Your task to perform on an android device: show emergency info Image 0: 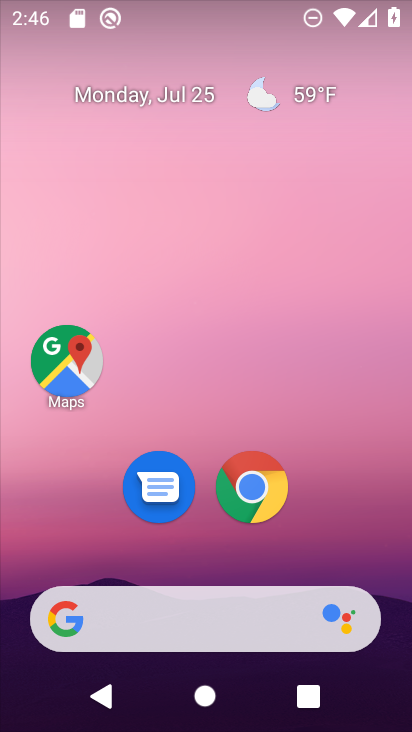
Step 0: drag from (150, 528) to (168, 25)
Your task to perform on an android device: show emergency info Image 1: 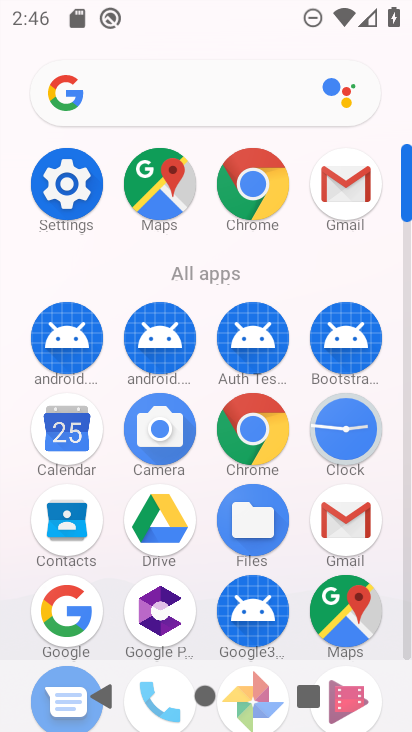
Step 1: click (74, 194)
Your task to perform on an android device: show emergency info Image 2: 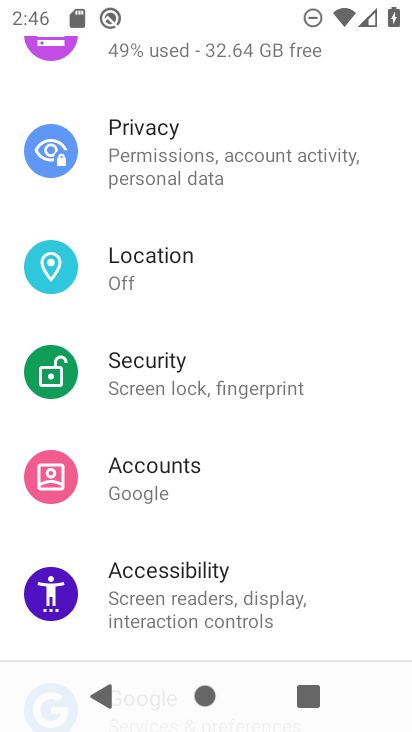
Step 2: drag from (208, 612) to (278, 44)
Your task to perform on an android device: show emergency info Image 3: 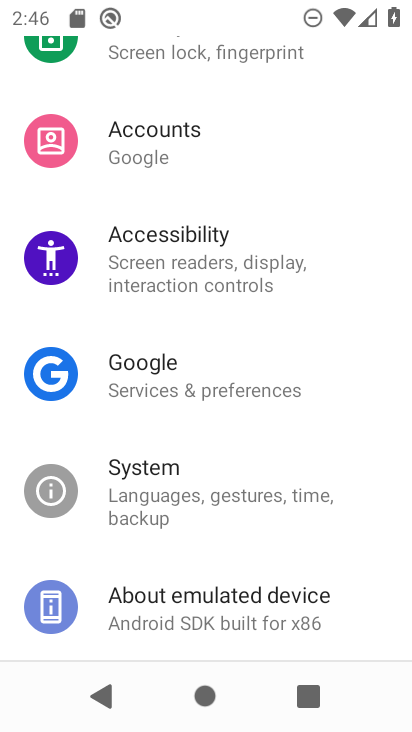
Step 3: click (182, 627)
Your task to perform on an android device: show emergency info Image 4: 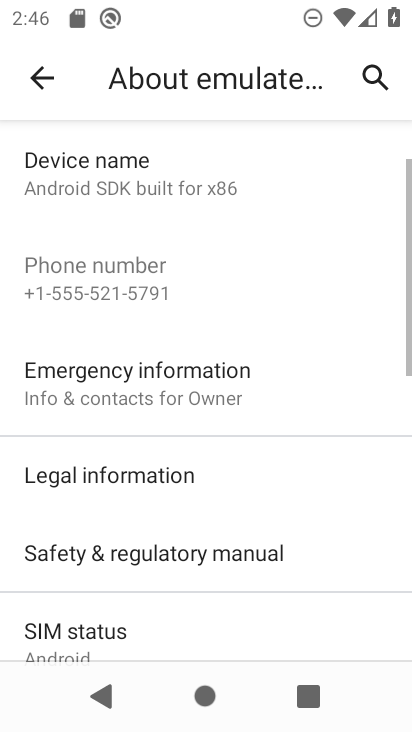
Step 4: click (114, 394)
Your task to perform on an android device: show emergency info Image 5: 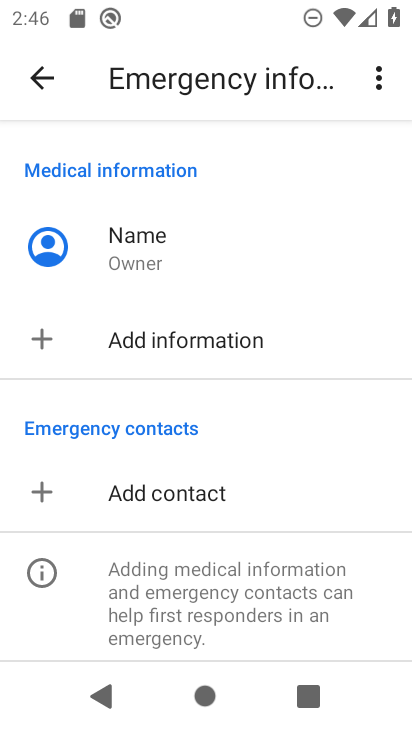
Step 5: task complete